Your task to perform on an android device: install app "Skype" Image 0: 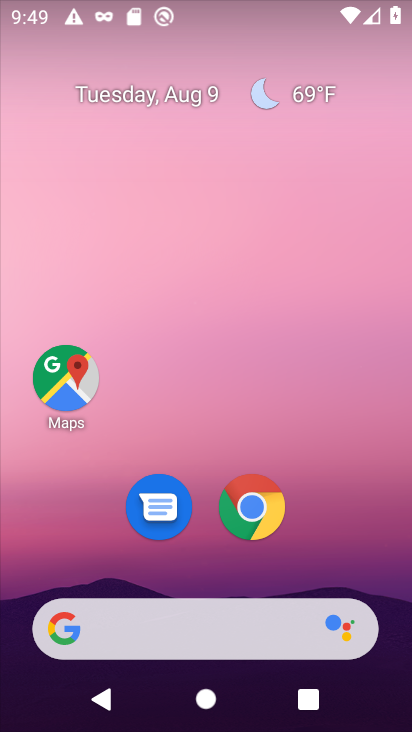
Step 0: drag from (189, 641) to (222, 54)
Your task to perform on an android device: install app "Skype" Image 1: 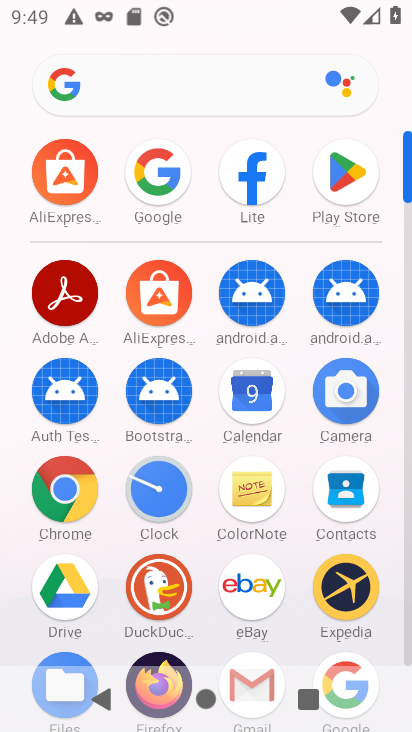
Step 1: click (352, 171)
Your task to perform on an android device: install app "Skype" Image 2: 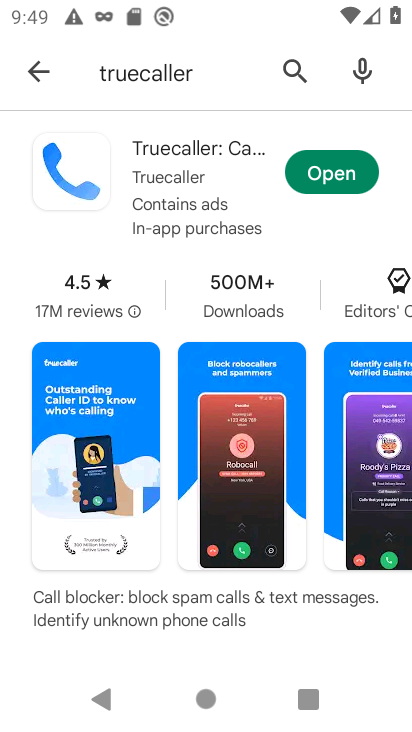
Step 2: click (294, 70)
Your task to perform on an android device: install app "Skype" Image 3: 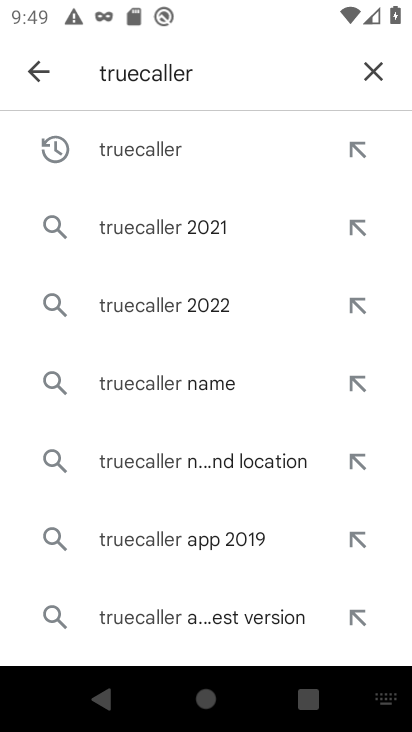
Step 3: click (375, 71)
Your task to perform on an android device: install app "Skype" Image 4: 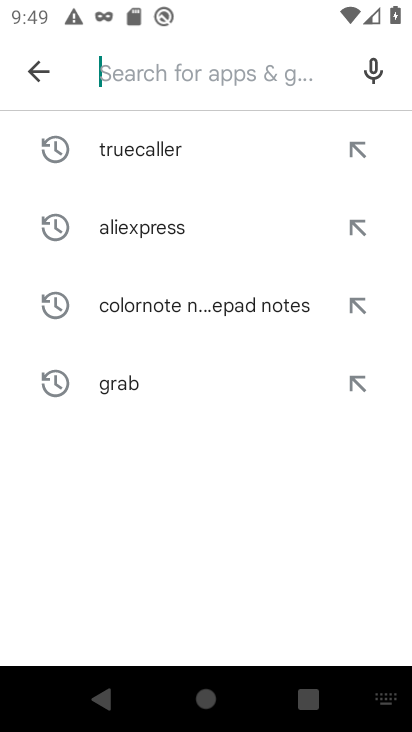
Step 4: type "Skype"
Your task to perform on an android device: install app "Skype" Image 5: 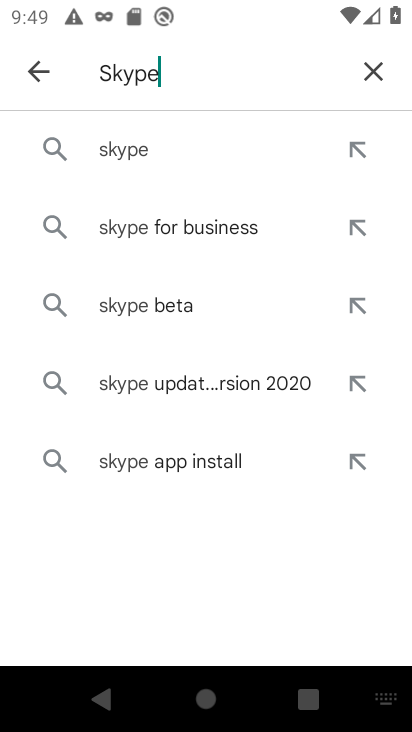
Step 5: click (137, 155)
Your task to perform on an android device: install app "Skype" Image 6: 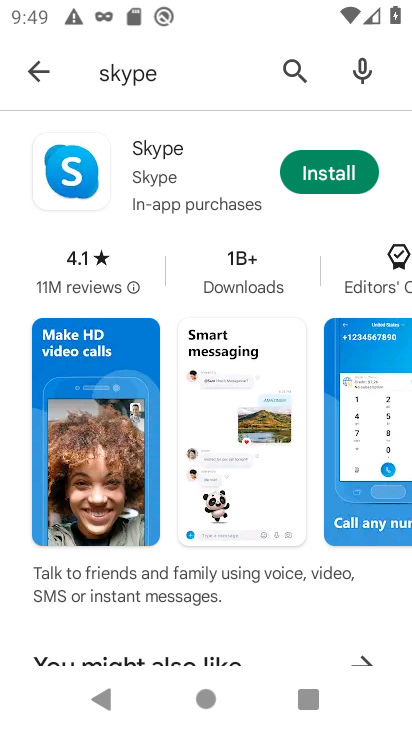
Step 6: click (324, 178)
Your task to perform on an android device: install app "Skype" Image 7: 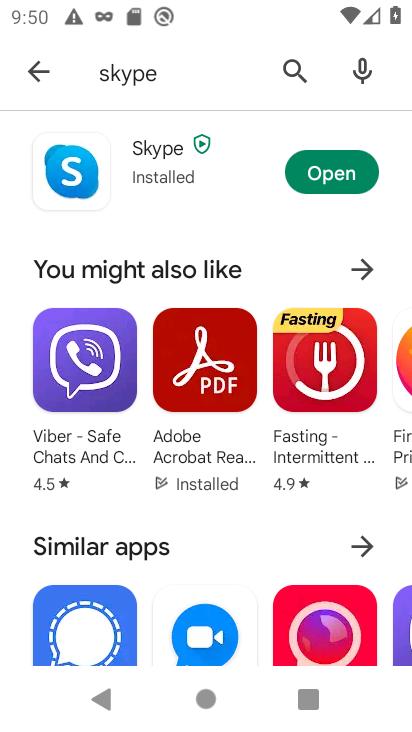
Step 7: task complete